Your task to perform on an android device: Open the calendar app, open the side menu, and click the "Day" option Image 0: 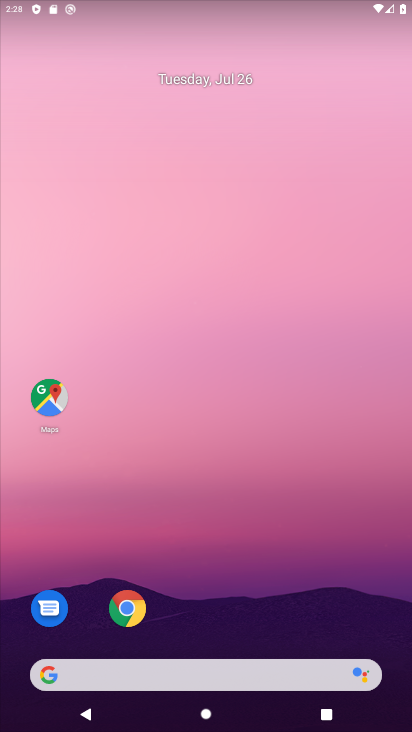
Step 0: drag from (311, 627) to (281, 82)
Your task to perform on an android device: Open the calendar app, open the side menu, and click the "Day" option Image 1: 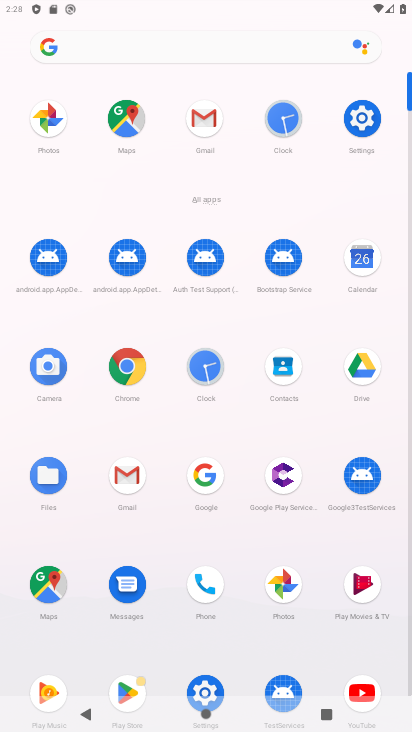
Step 1: click (365, 263)
Your task to perform on an android device: Open the calendar app, open the side menu, and click the "Day" option Image 2: 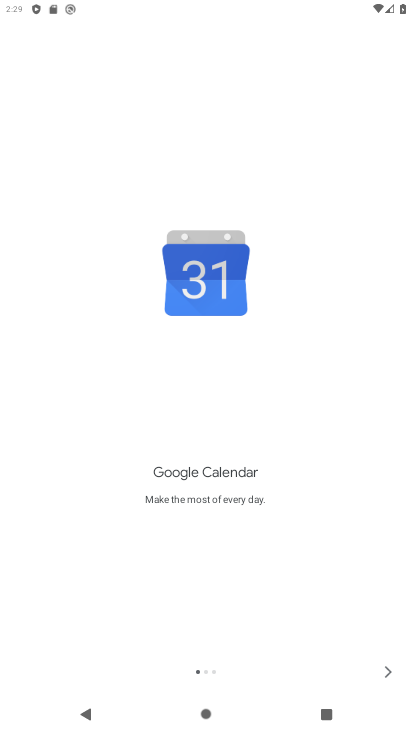
Step 2: click (389, 668)
Your task to perform on an android device: Open the calendar app, open the side menu, and click the "Day" option Image 3: 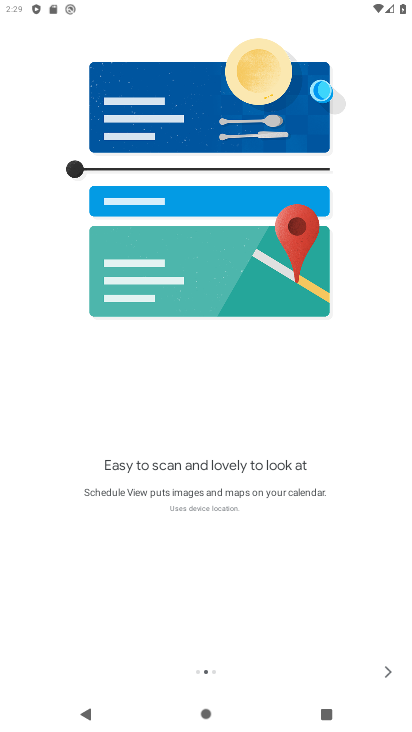
Step 3: click (389, 668)
Your task to perform on an android device: Open the calendar app, open the side menu, and click the "Day" option Image 4: 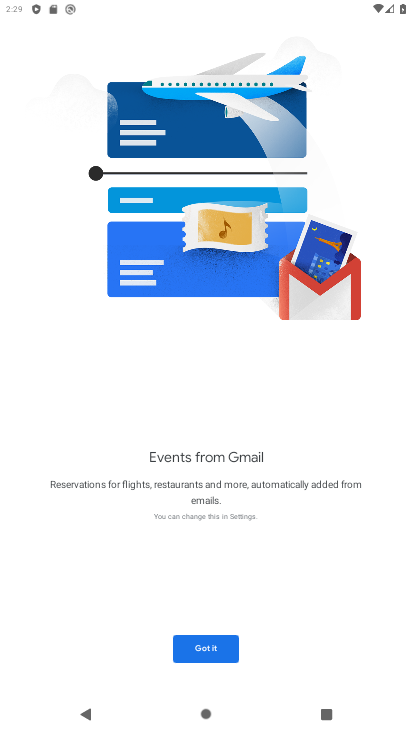
Step 4: click (210, 650)
Your task to perform on an android device: Open the calendar app, open the side menu, and click the "Day" option Image 5: 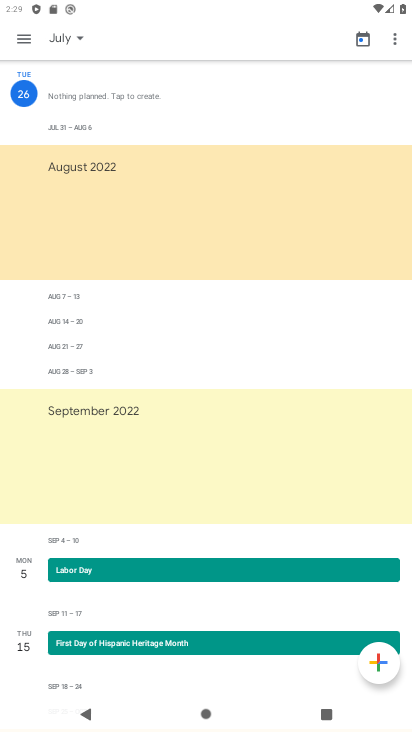
Step 5: click (14, 41)
Your task to perform on an android device: Open the calendar app, open the side menu, and click the "Day" option Image 6: 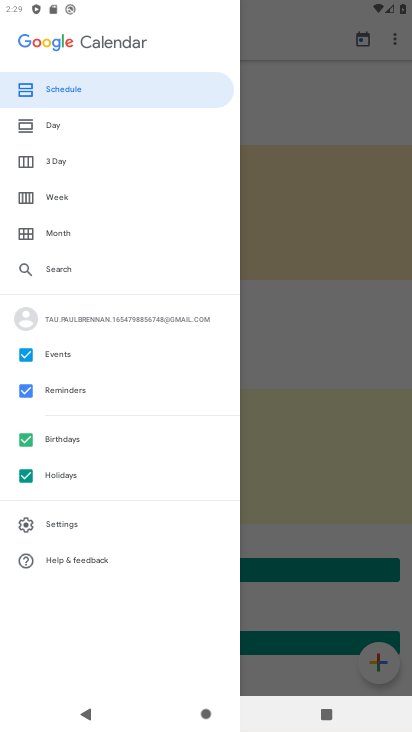
Step 6: click (33, 127)
Your task to perform on an android device: Open the calendar app, open the side menu, and click the "Day" option Image 7: 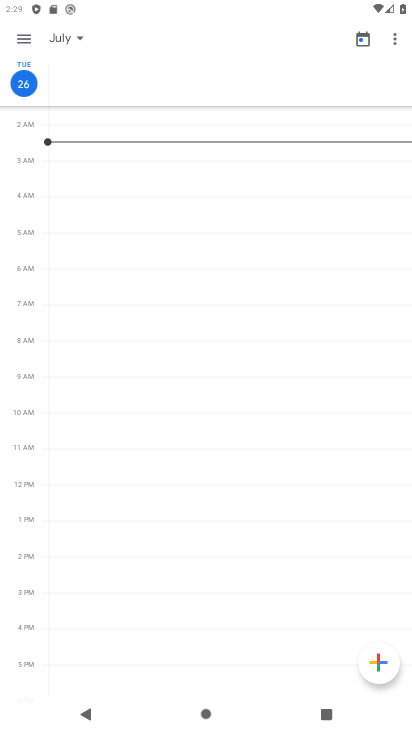
Step 7: task complete